Your task to perform on an android device: change the upload size in google photos Image 0: 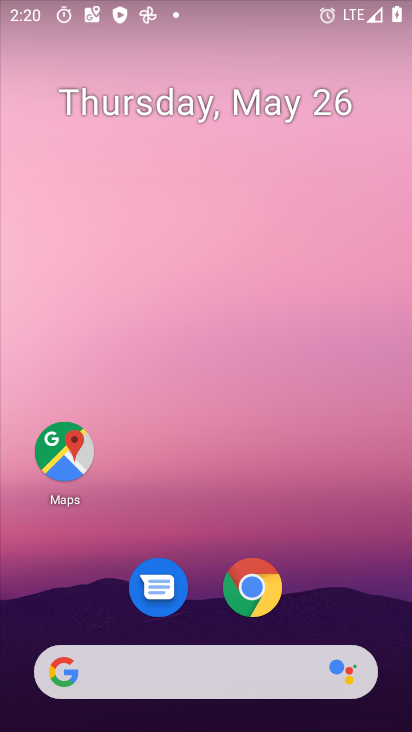
Step 0: drag from (378, 598) to (367, 216)
Your task to perform on an android device: change the upload size in google photos Image 1: 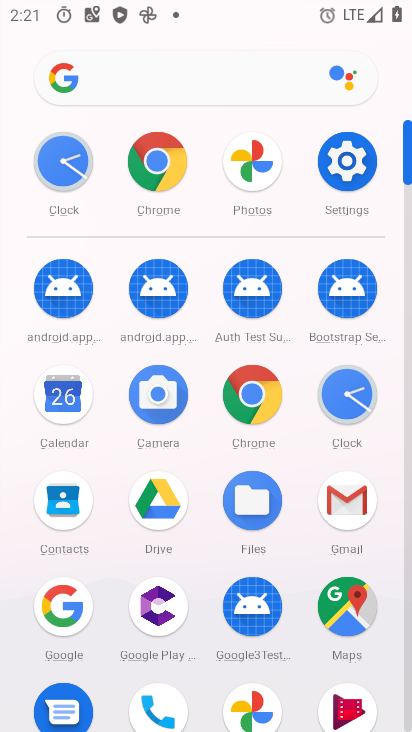
Step 1: drag from (381, 547) to (399, 251)
Your task to perform on an android device: change the upload size in google photos Image 2: 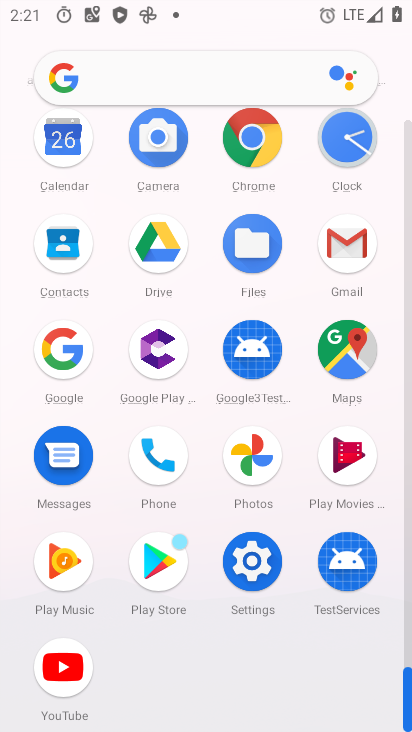
Step 2: click (263, 461)
Your task to perform on an android device: change the upload size in google photos Image 3: 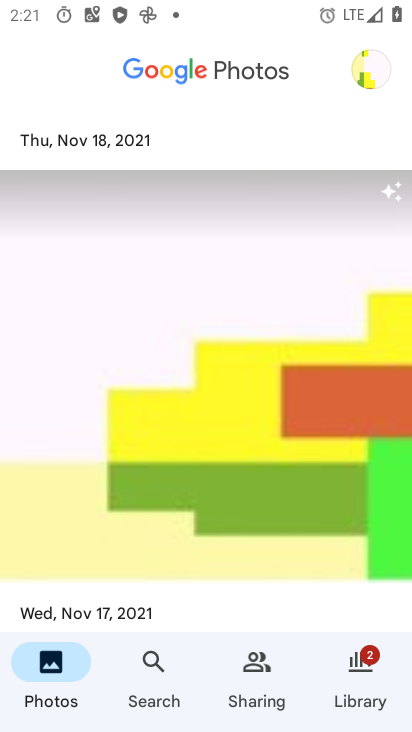
Step 3: click (378, 71)
Your task to perform on an android device: change the upload size in google photos Image 4: 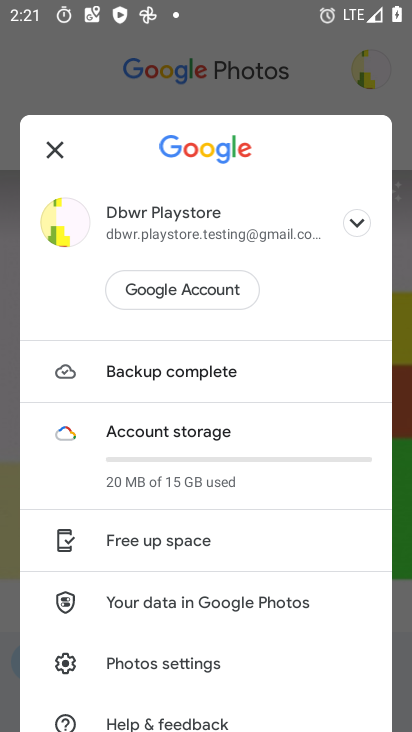
Step 4: drag from (314, 638) to (329, 547)
Your task to perform on an android device: change the upload size in google photos Image 5: 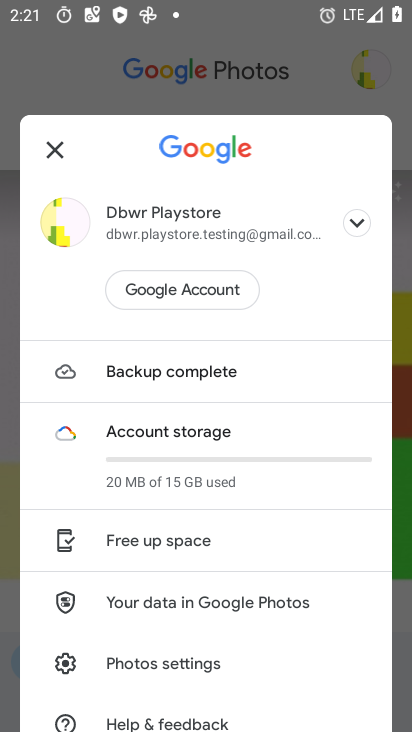
Step 5: drag from (310, 653) to (310, 451)
Your task to perform on an android device: change the upload size in google photos Image 6: 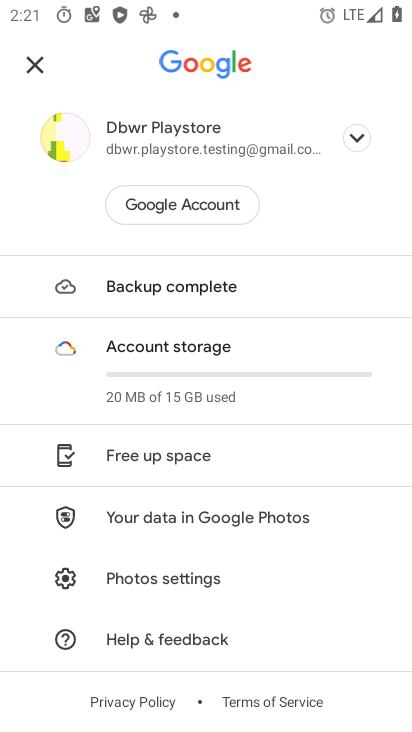
Step 6: click (200, 578)
Your task to perform on an android device: change the upload size in google photos Image 7: 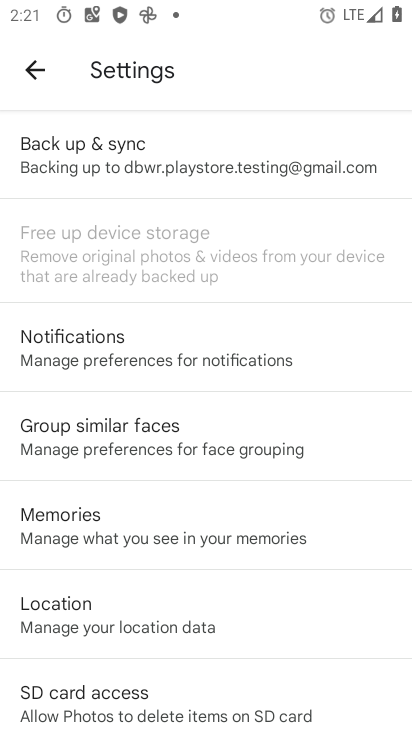
Step 7: drag from (320, 609) to (324, 520)
Your task to perform on an android device: change the upload size in google photos Image 8: 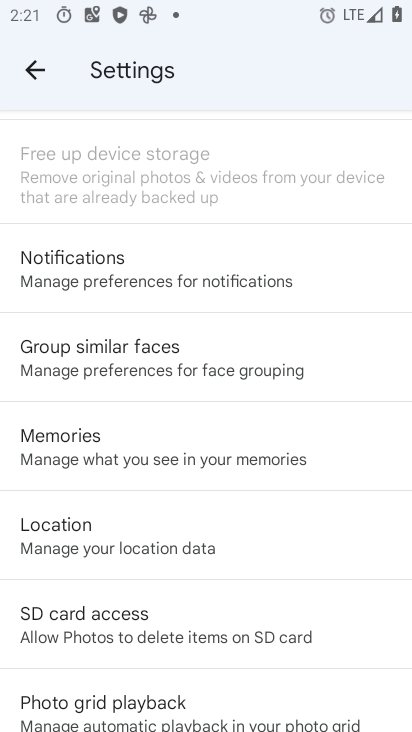
Step 8: drag from (328, 617) to (343, 387)
Your task to perform on an android device: change the upload size in google photos Image 9: 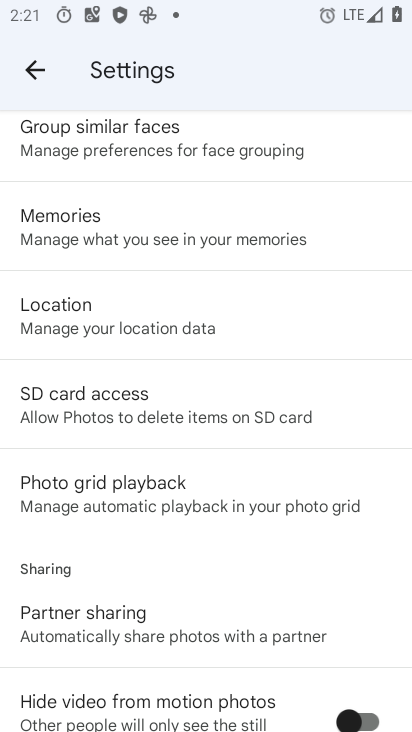
Step 9: drag from (353, 624) to (365, 459)
Your task to perform on an android device: change the upload size in google photos Image 10: 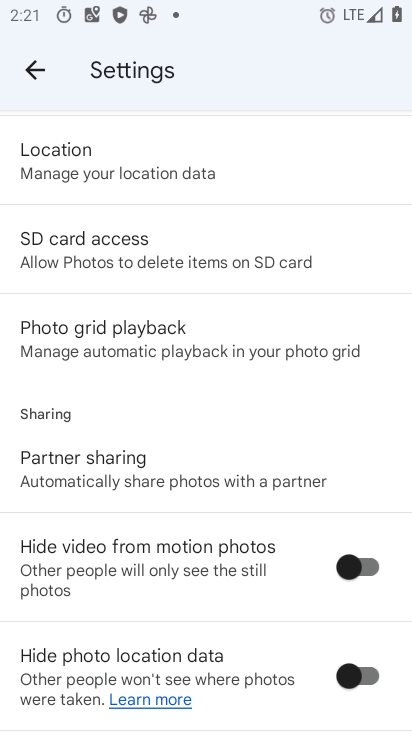
Step 10: drag from (304, 683) to (319, 423)
Your task to perform on an android device: change the upload size in google photos Image 11: 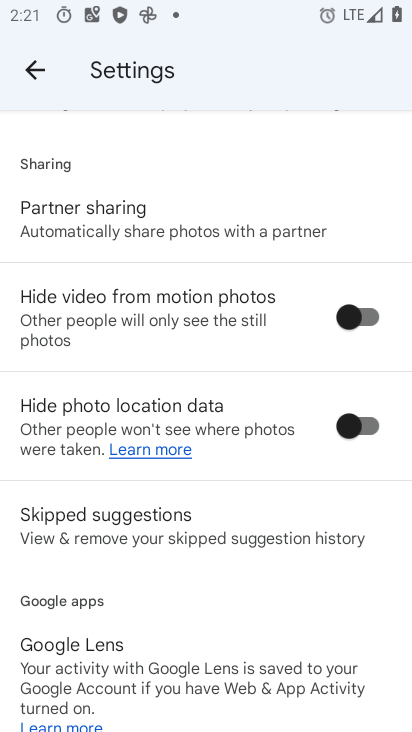
Step 11: drag from (304, 573) to (311, 431)
Your task to perform on an android device: change the upload size in google photos Image 12: 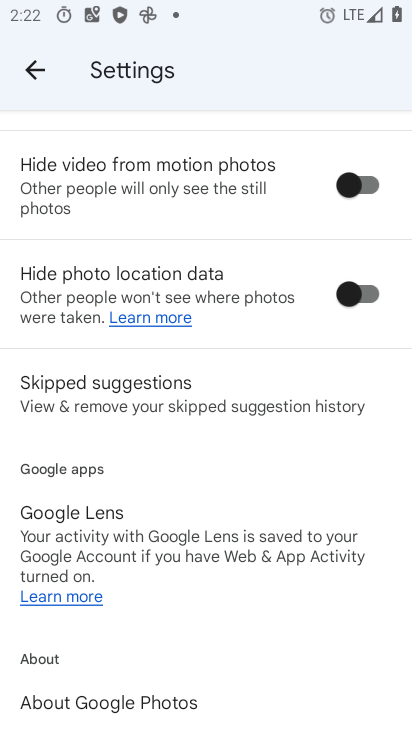
Step 12: drag from (298, 252) to (295, 342)
Your task to perform on an android device: change the upload size in google photos Image 13: 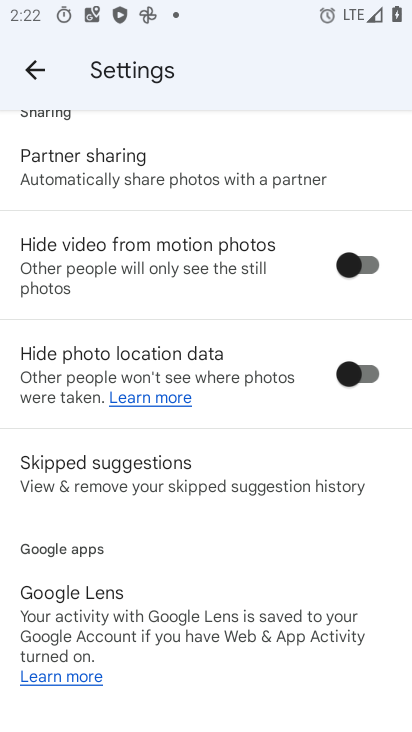
Step 13: drag from (303, 243) to (308, 360)
Your task to perform on an android device: change the upload size in google photos Image 14: 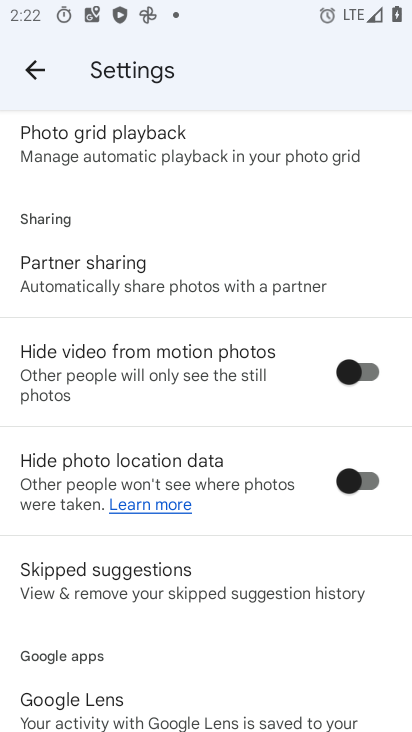
Step 14: drag from (308, 220) to (305, 347)
Your task to perform on an android device: change the upload size in google photos Image 15: 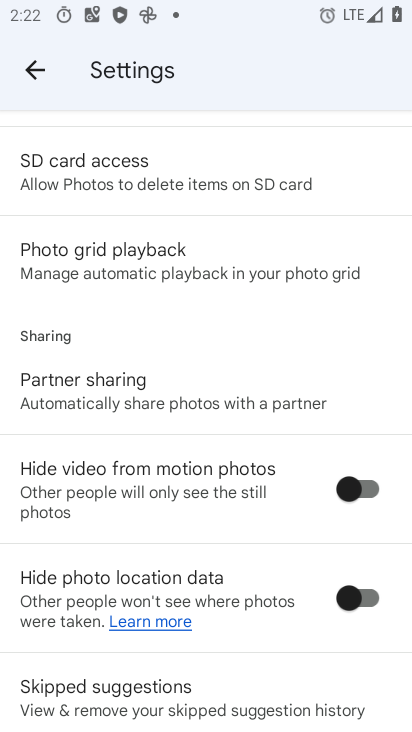
Step 15: drag from (311, 233) to (307, 346)
Your task to perform on an android device: change the upload size in google photos Image 16: 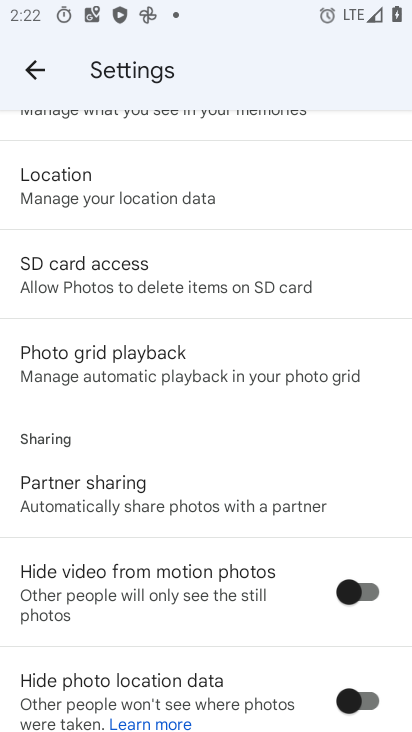
Step 16: drag from (322, 218) to (316, 319)
Your task to perform on an android device: change the upload size in google photos Image 17: 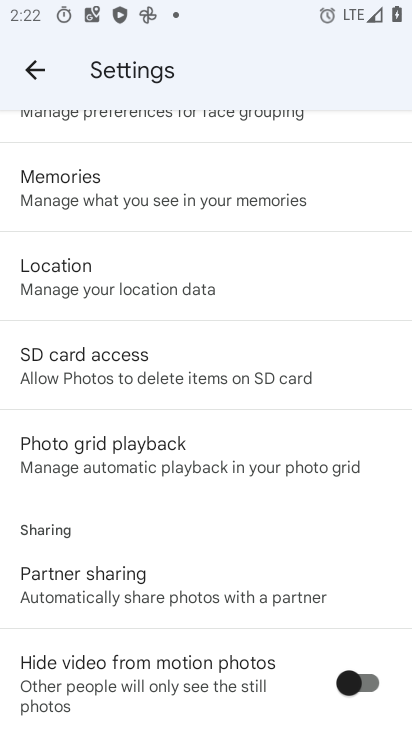
Step 17: drag from (325, 231) to (330, 342)
Your task to perform on an android device: change the upload size in google photos Image 18: 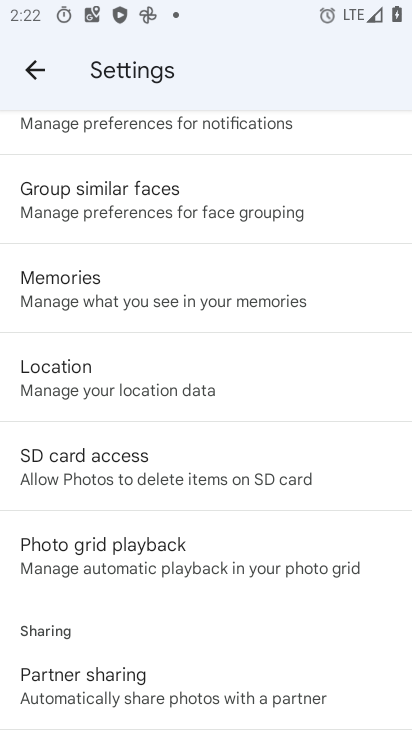
Step 18: drag from (340, 225) to (339, 352)
Your task to perform on an android device: change the upload size in google photos Image 19: 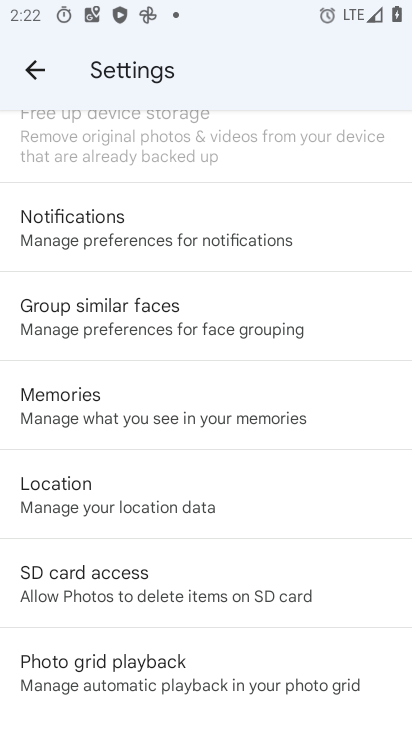
Step 19: drag from (327, 202) to (322, 410)
Your task to perform on an android device: change the upload size in google photos Image 20: 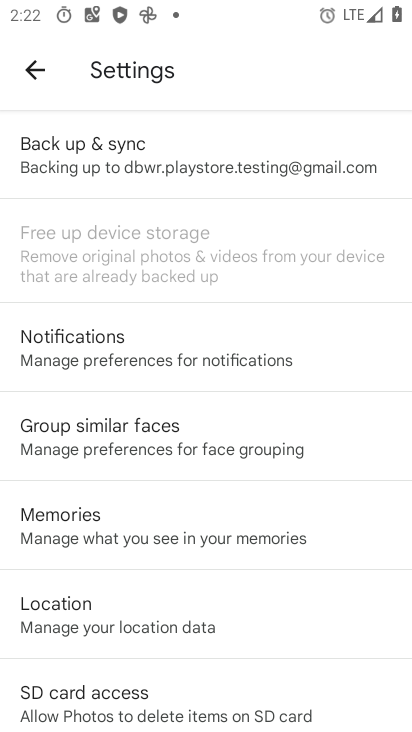
Step 20: click (315, 169)
Your task to perform on an android device: change the upload size in google photos Image 21: 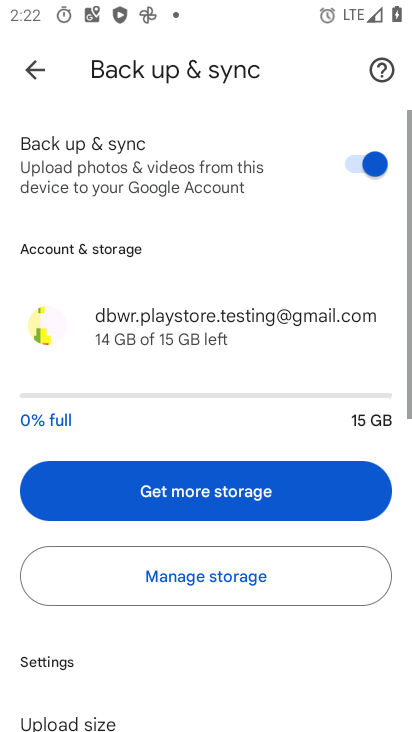
Step 21: drag from (292, 431) to (301, 163)
Your task to perform on an android device: change the upload size in google photos Image 22: 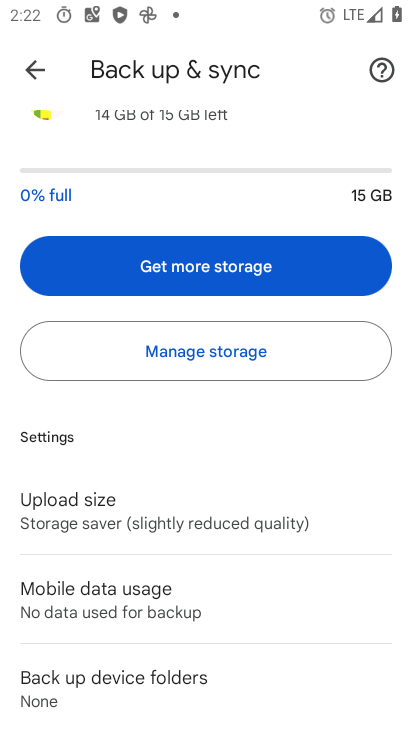
Step 22: click (207, 525)
Your task to perform on an android device: change the upload size in google photos Image 23: 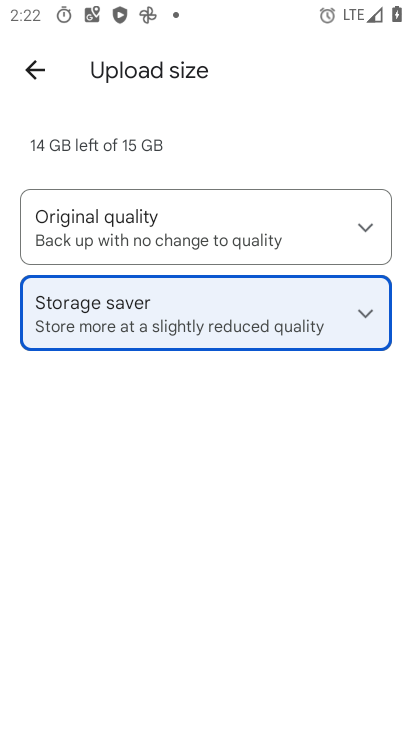
Step 23: click (177, 220)
Your task to perform on an android device: change the upload size in google photos Image 24: 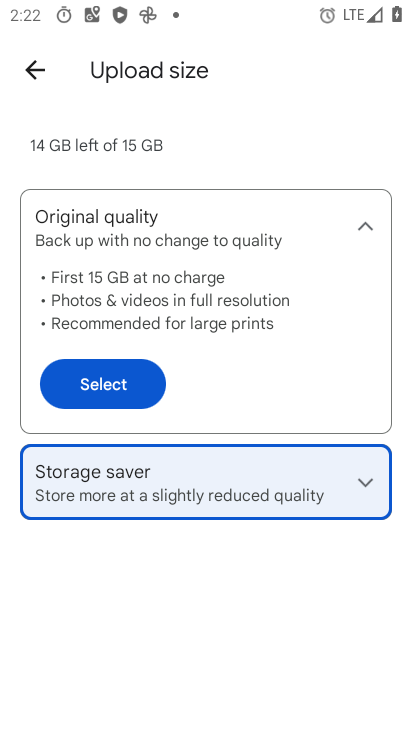
Step 24: click (141, 405)
Your task to perform on an android device: change the upload size in google photos Image 25: 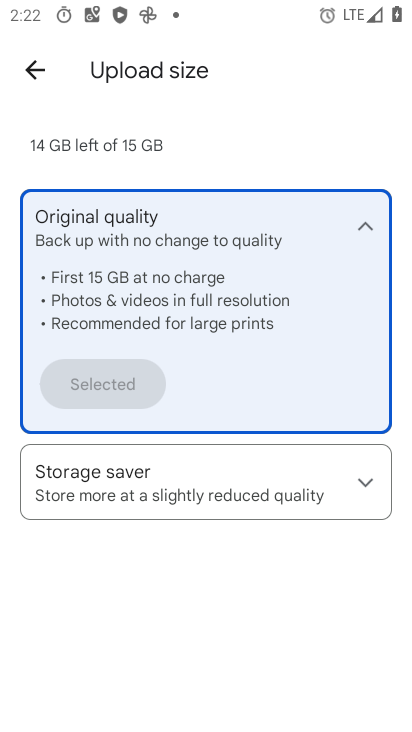
Step 25: task complete